Your task to perform on an android device: Go to calendar. Show me events next week Image 0: 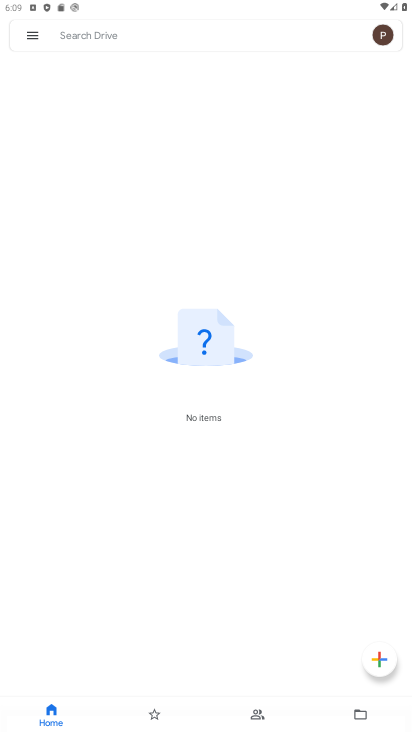
Step 0: press home button
Your task to perform on an android device: Go to calendar. Show me events next week Image 1: 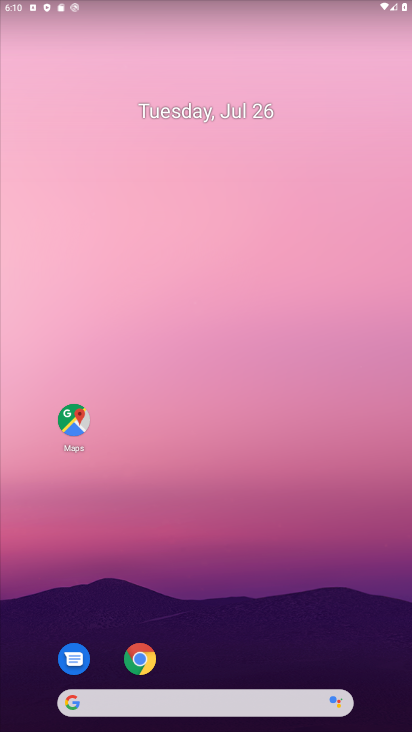
Step 1: drag from (296, 617) to (302, 203)
Your task to perform on an android device: Go to calendar. Show me events next week Image 2: 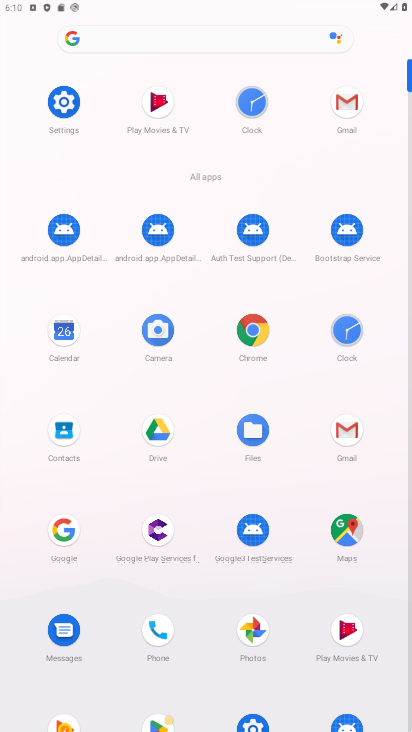
Step 2: click (60, 331)
Your task to perform on an android device: Go to calendar. Show me events next week Image 3: 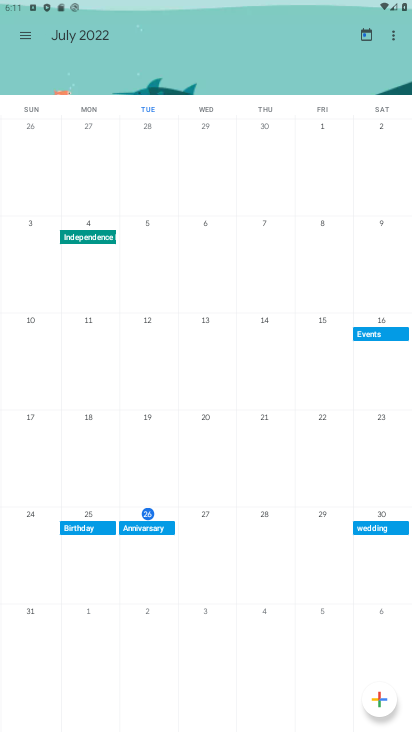
Step 3: task complete